Your task to perform on an android device: turn on showing notifications on the lock screen Image 0: 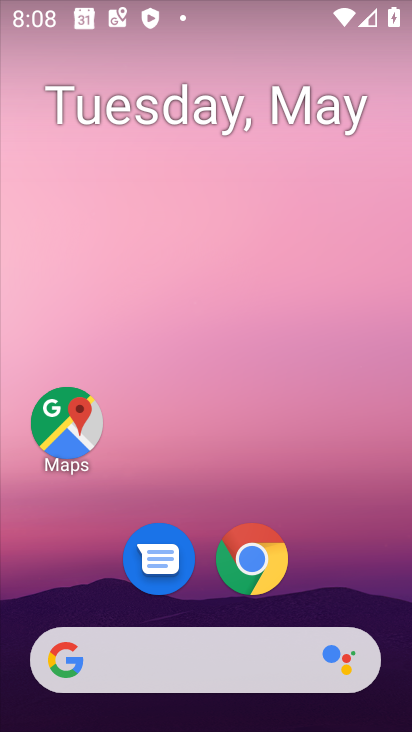
Step 0: drag from (366, 501) to (219, 51)
Your task to perform on an android device: turn on showing notifications on the lock screen Image 1: 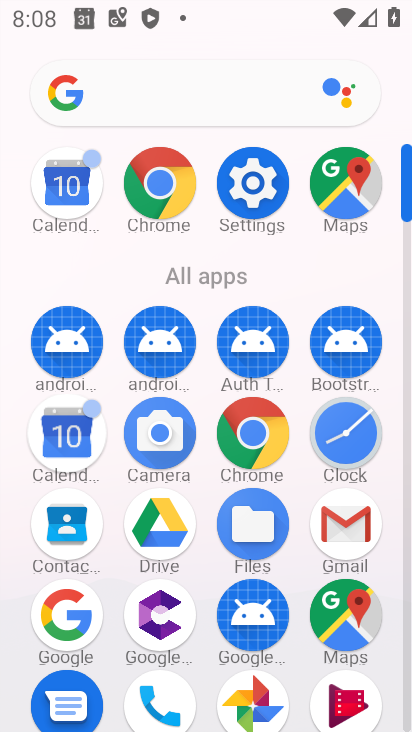
Step 1: click (262, 185)
Your task to perform on an android device: turn on showing notifications on the lock screen Image 2: 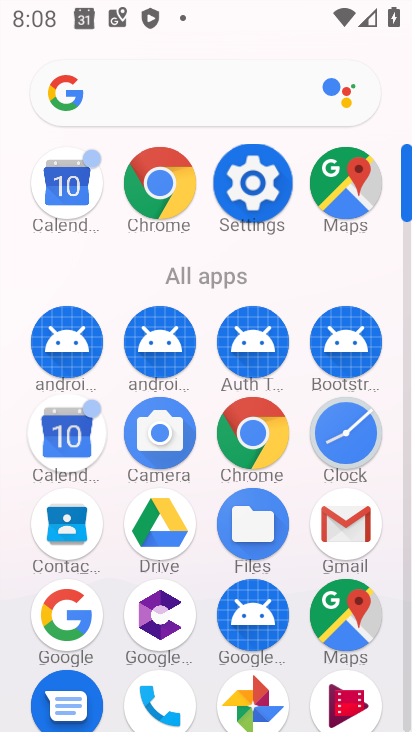
Step 2: click (253, 185)
Your task to perform on an android device: turn on showing notifications on the lock screen Image 3: 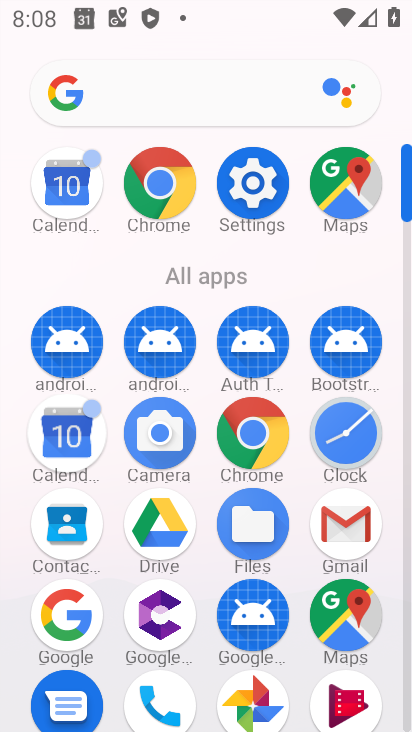
Step 3: click (247, 190)
Your task to perform on an android device: turn on showing notifications on the lock screen Image 4: 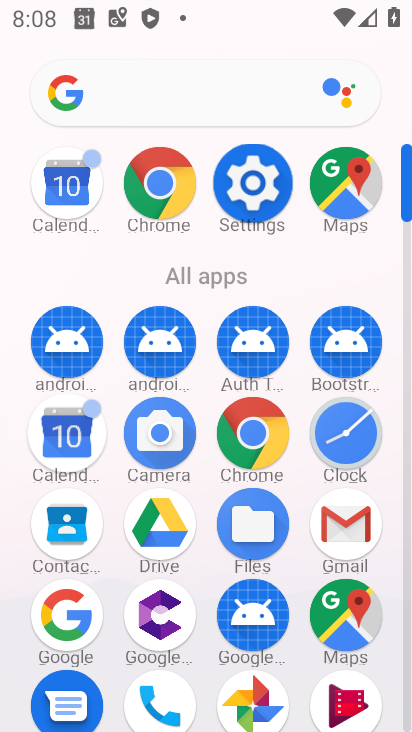
Step 4: click (252, 185)
Your task to perform on an android device: turn on showing notifications on the lock screen Image 5: 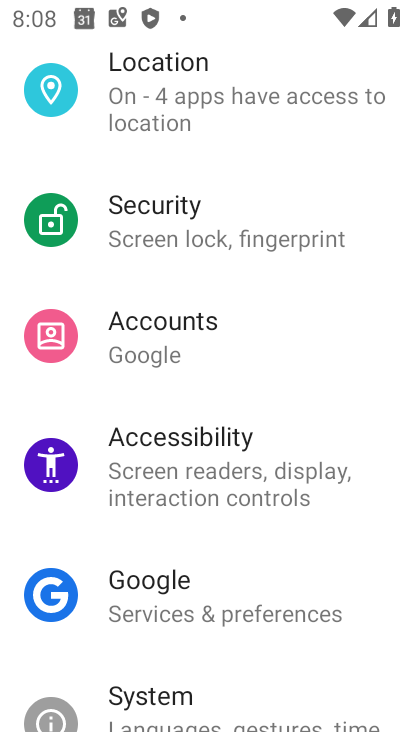
Step 5: drag from (234, 215) to (302, 543)
Your task to perform on an android device: turn on showing notifications on the lock screen Image 6: 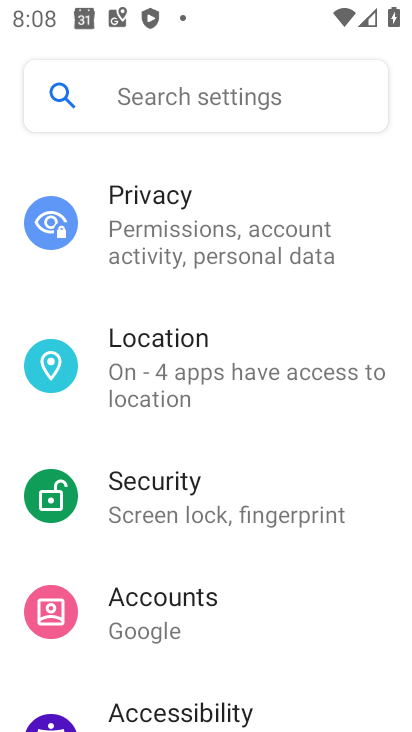
Step 6: drag from (294, 254) to (211, 554)
Your task to perform on an android device: turn on showing notifications on the lock screen Image 7: 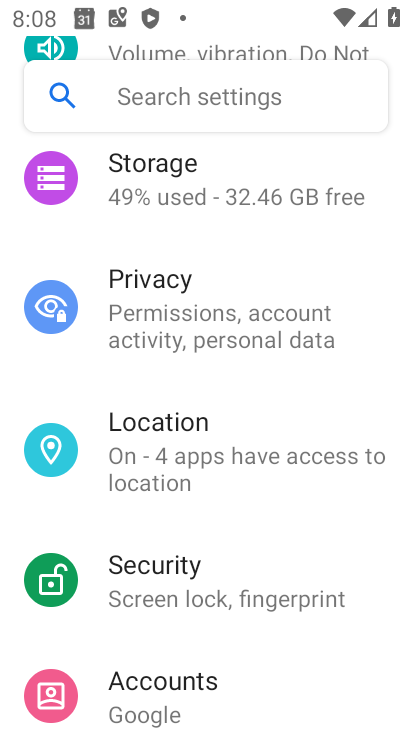
Step 7: drag from (167, 213) to (157, 548)
Your task to perform on an android device: turn on showing notifications on the lock screen Image 8: 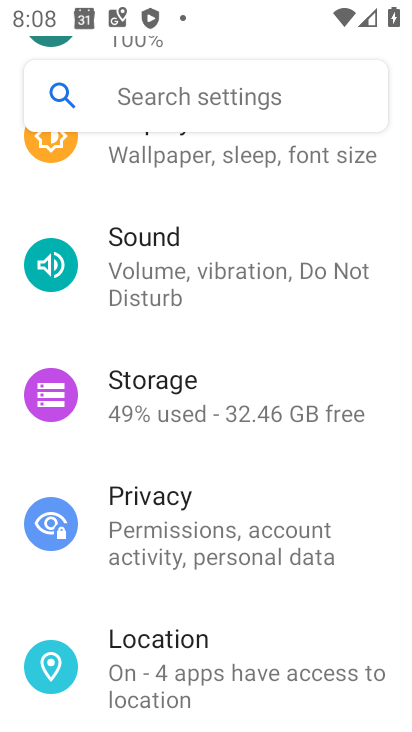
Step 8: drag from (210, 296) to (229, 614)
Your task to perform on an android device: turn on showing notifications on the lock screen Image 9: 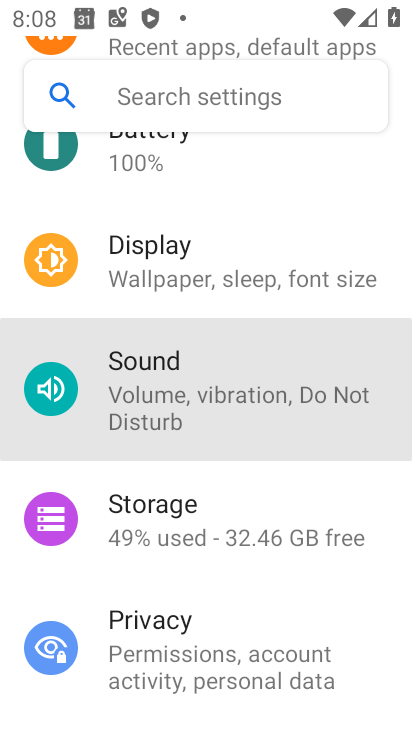
Step 9: drag from (247, 398) to (225, 615)
Your task to perform on an android device: turn on showing notifications on the lock screen Image 10: 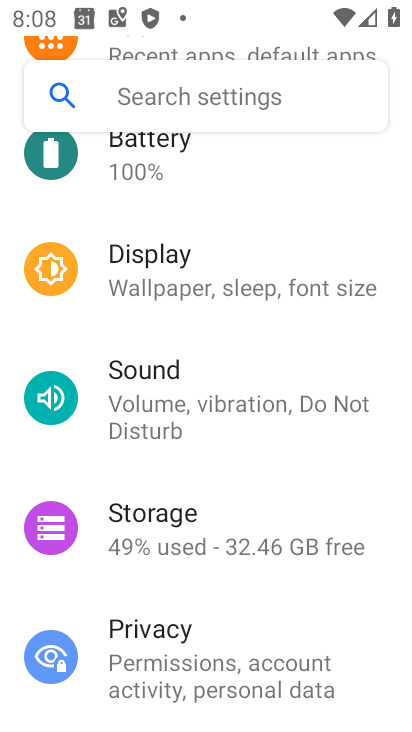
Step 10: drag from (210, 247) to (236, 723)
Your task to perform on an android device: turn on showing notifications on the lock screen Image 11: 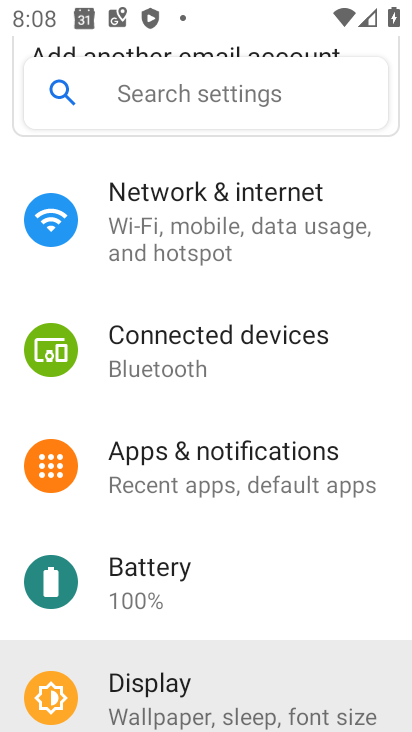
Step 11: drag from (221, 312) to (187, 625)
Your task to perform on an android device: turn on showing notifications on the lock screen Image 12: 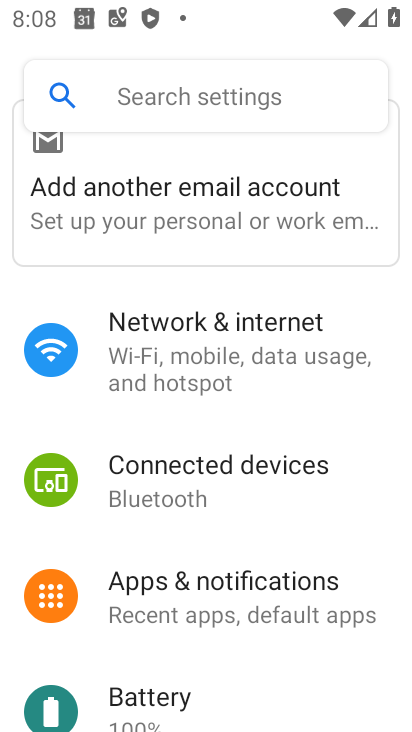
Step 12: click (197, 588)
Your task to perform on an android device: turn on showing notifications on the lock screen Image 13: 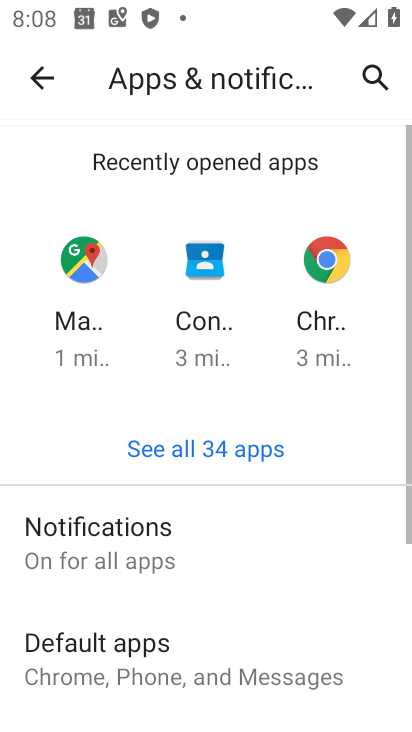
Step 13: click (188, 593)
Your task to perform on an android device: turn on showing notifications on the lock screen Image 14: 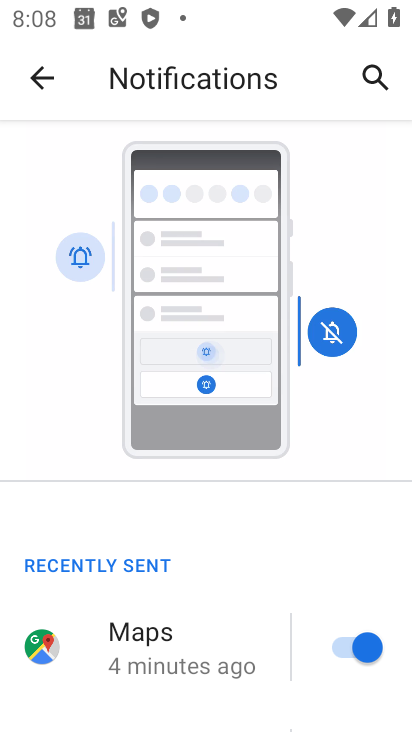
Step 14: drag from (181, 582) to (138, 49)
Your task to perform on an android device: turn on showing notifications on the lock screen Image 15: 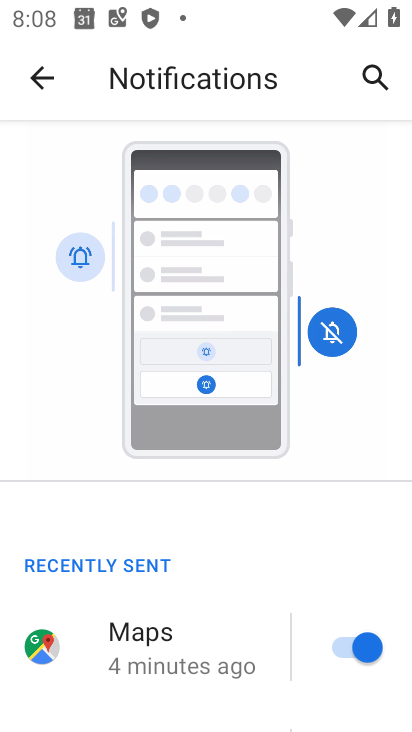
Step 15: drag from (280, 588) to (332, 0)
Your task to perform on an android device: turn on showing notifications on the lock screen Image 16: 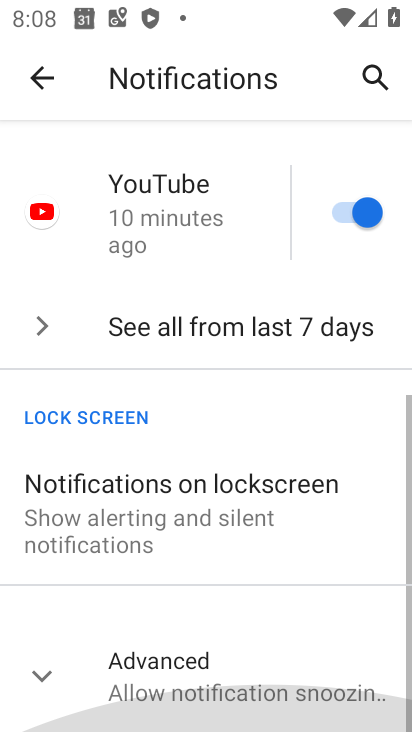
Step 16: drag from (288, 556) to (268, 3)
Your task to perform on an android device: turn on showing notifications on the lock screen Image 17: 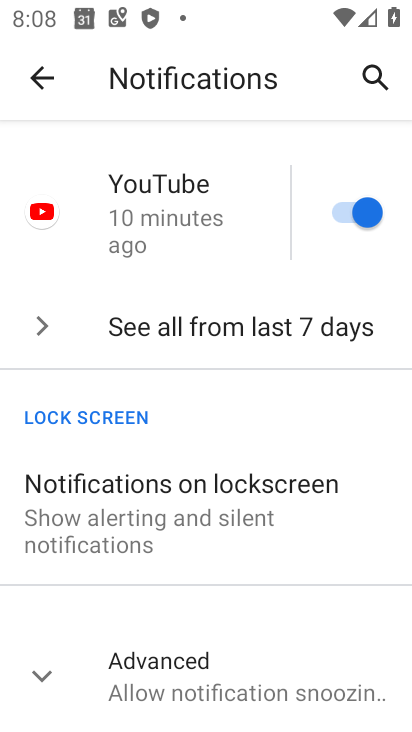
Step 17: click (131, 497)
Your task to perform on an android device: turn on showing notifications on the lock screen Image 18: 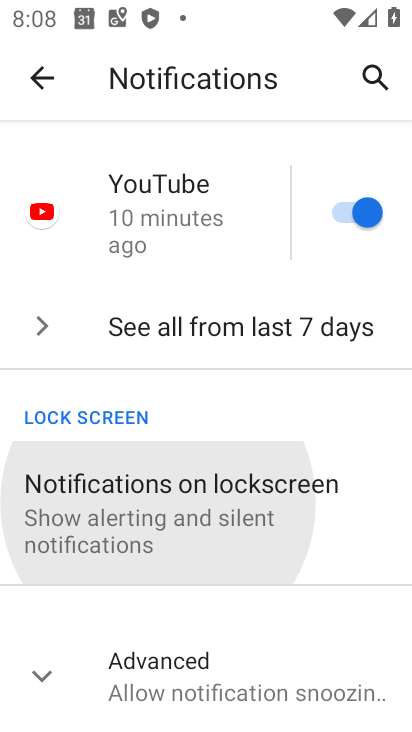
Step 18: click (131, 497)
Your task to perform on an android device: turn on showing notifications on the lock screen Image 19: 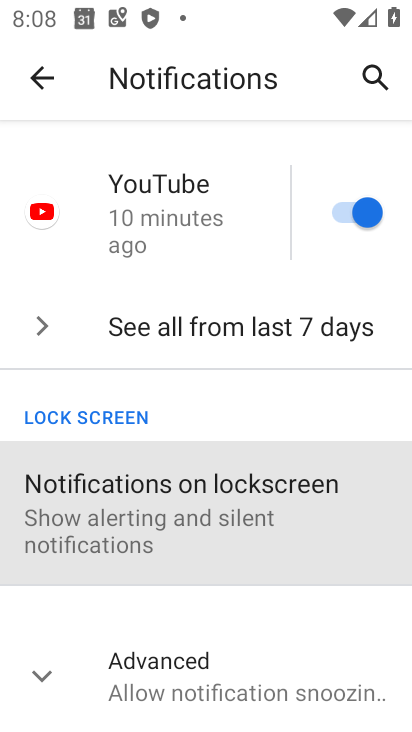
Step 19: click (131, 497)
Your task to perform on an android device: turn on showing notifications on the lock screen Image 20: 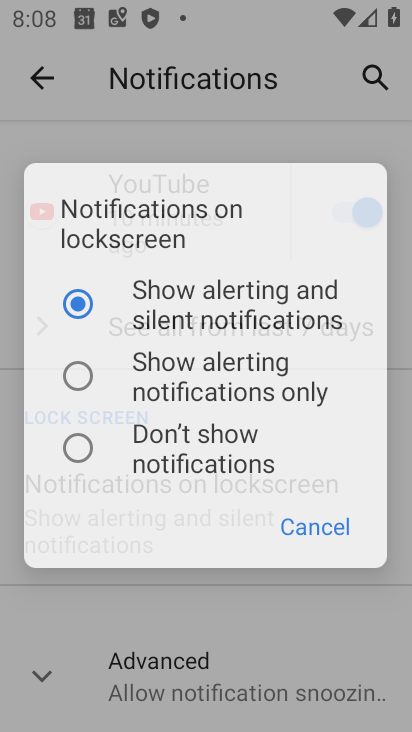
Step 20: click (131, 497)
Your task to perform on an android device: turn on showing notifications on the lock screen Image 21: 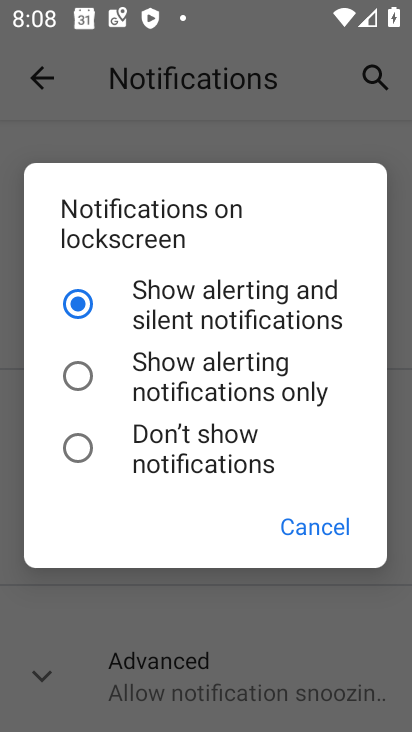
Step 21: click (131, 497)
Your task to perform on an android device: turn on showing notifications on the lock screen Image 22: 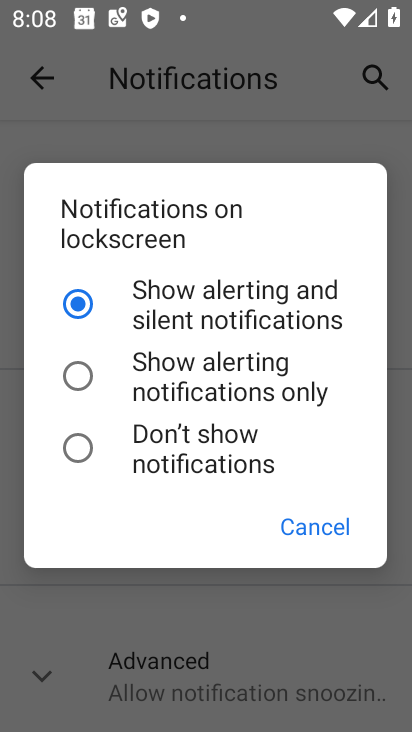
Step 22: click (107, 476)
Your task to perform on an android device: turn on showing notifications on the lock screen Image 23: 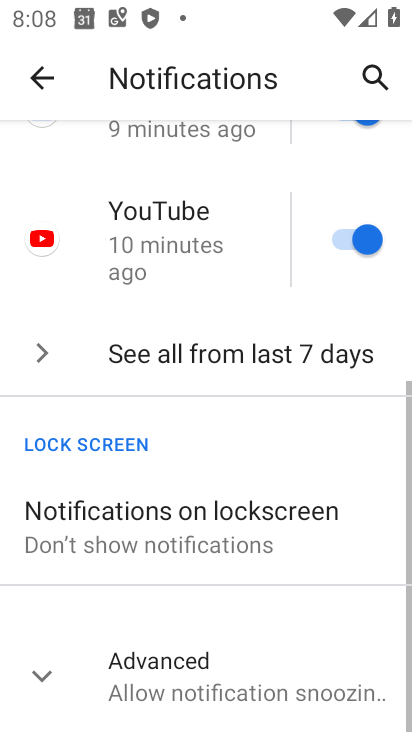
Step 23: click (73, 368)
Your task to perform on an android device: turn on showing notifications on the lock screen Image 24: 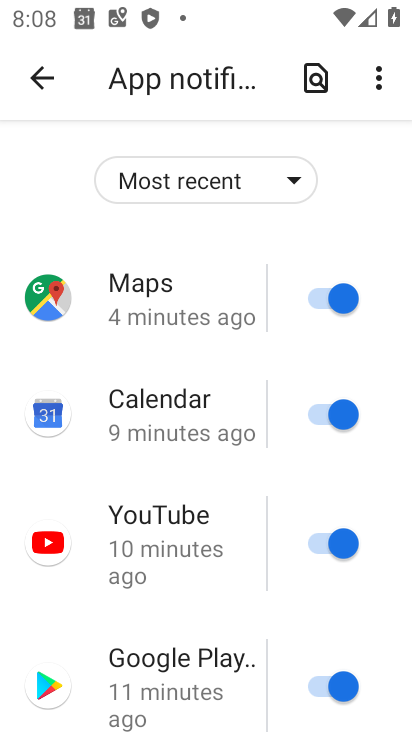
Step 24: click (37, 69)
Your task to perform on an android device: turn on showing notifications on the lock screen Image 25: 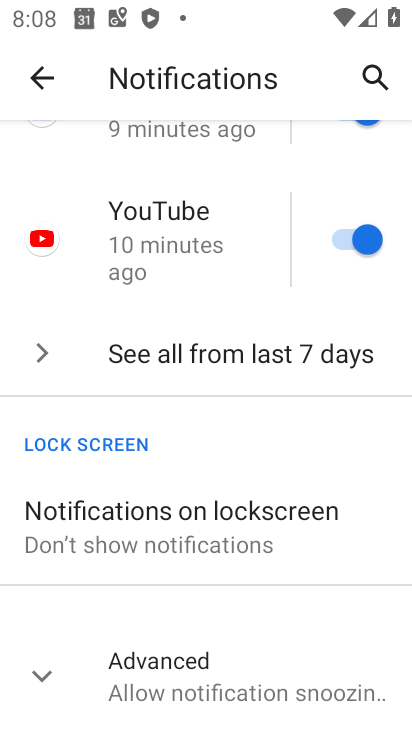
Step 25: click (179, 506)
Your task to perform on an android device: turn on showing notifications on the lock screen Image 26: 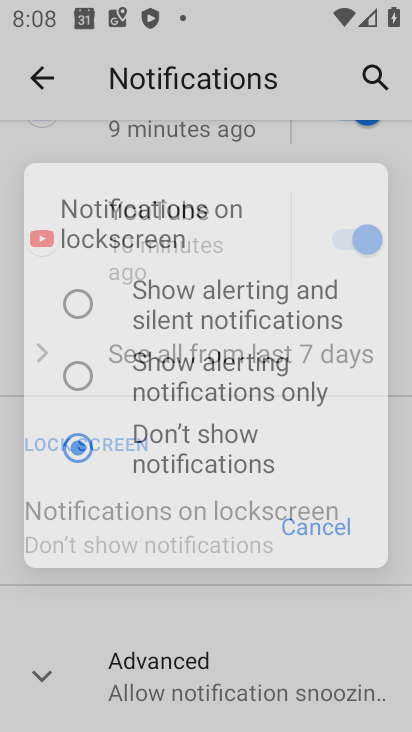
Step 26: click (189, 511)
Your task to perform on an android device: turn on showing notifications on the lock screen Image 27: 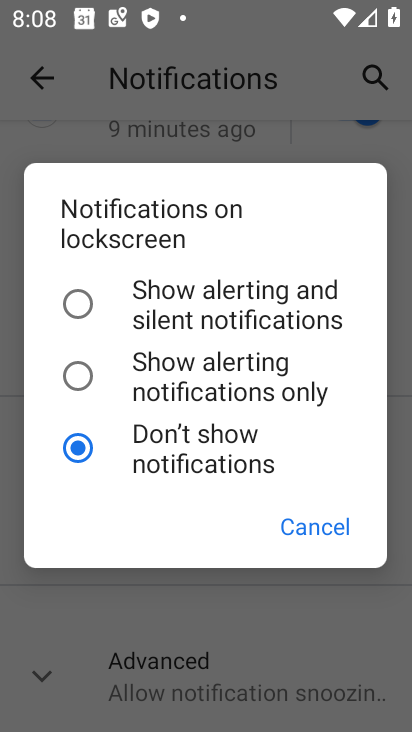
Step 27: click (78, 300)
Your task to perform on an android device: turn on showing notifications on the lock screen Image 28: 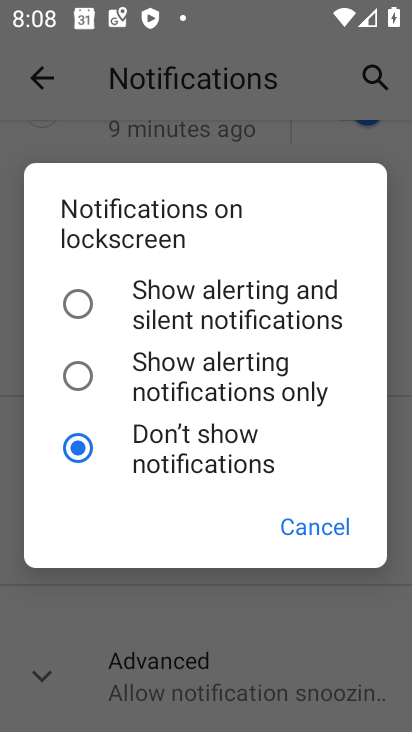
Step 28: click (84, 304)
Your task to perform on an android device: turn on showing notifications on the lock screen Image 29: 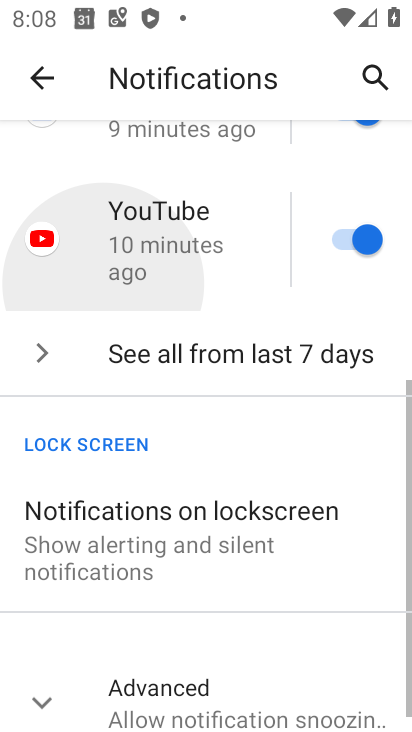
Step 29: click (85, 308)
Your task to perform on an android device: turn on showing notifications on the lock screen Image 30: 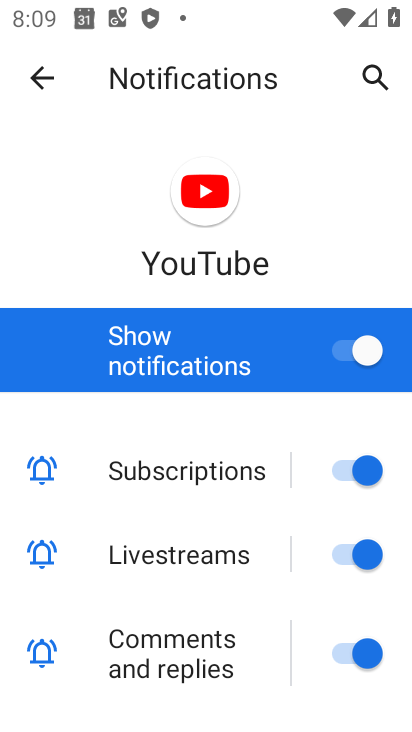
Step 30: click (33, 77)
Your task to perform on an android device: turn on showing notifications on the lock screen Image 31: 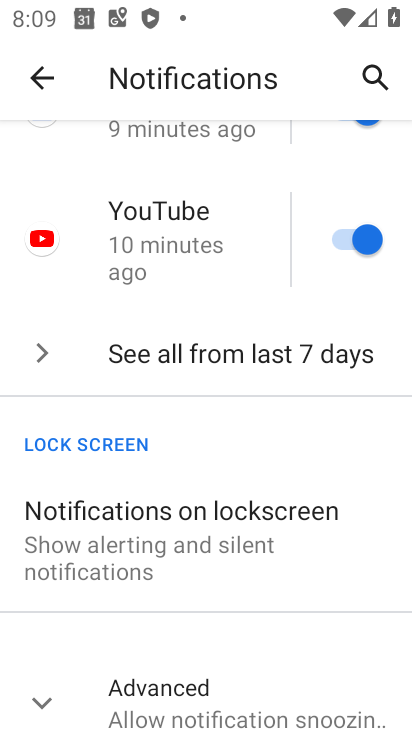
Step 31: click (144, 534)
Your task to perform on an android device: turn on showing notifications on the lock screen Image 32: 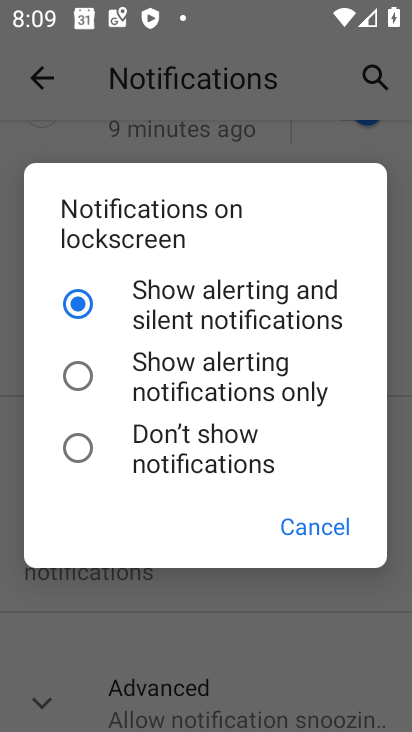
Step 32: click (295, 520)
Your task to perform on an android device: turn on showing notifications on the lock screen Image 33: 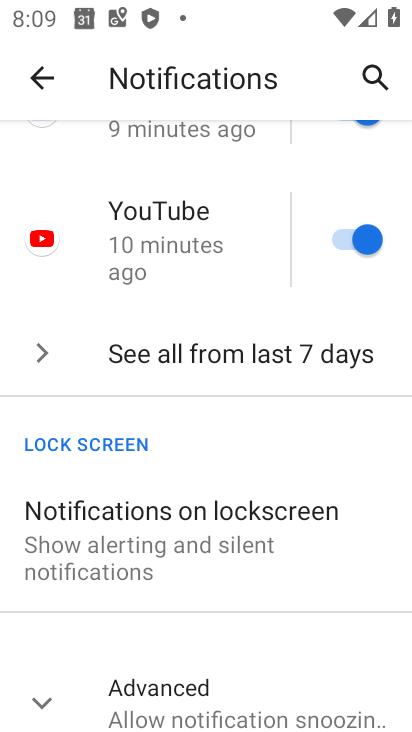
Step 33: task complete